Your task to perform on an android device: install app "Roku - Official Remote Control" Image 0: 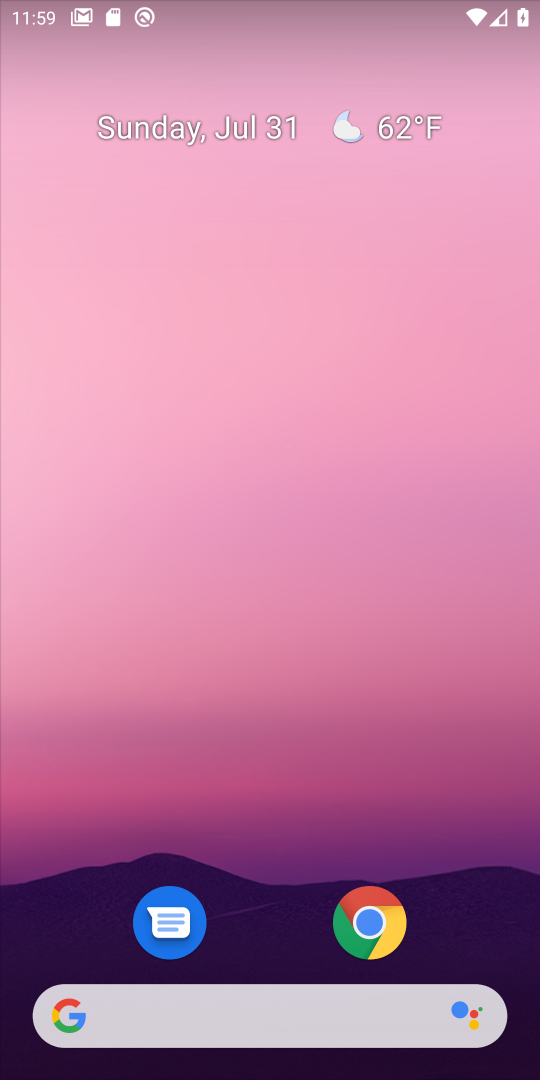
Step 0: drag from (295, 855) to (295, 242)
Your task to perform on an android device: install app "Roku - Official Remote Control" Image 1: 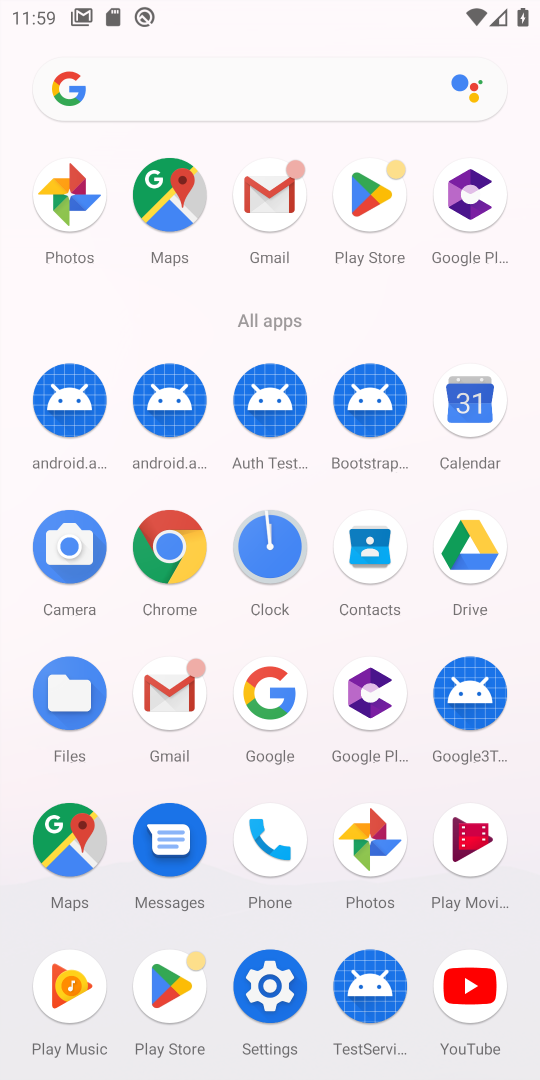
Step 1: click (358, 206)
Your task to perform on an android device: install app "Roku - Official Remote Control" Image 2: 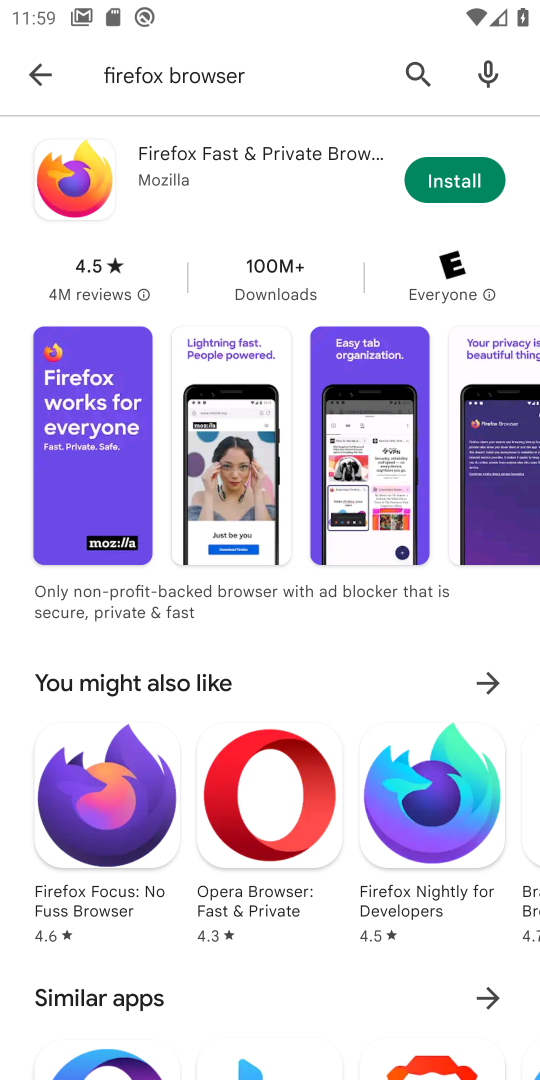
Step 2: drag from (414, 81) to (463, 81)
Your task to perform on an android device: install app "Roku - Official Remote Control" Image 3: 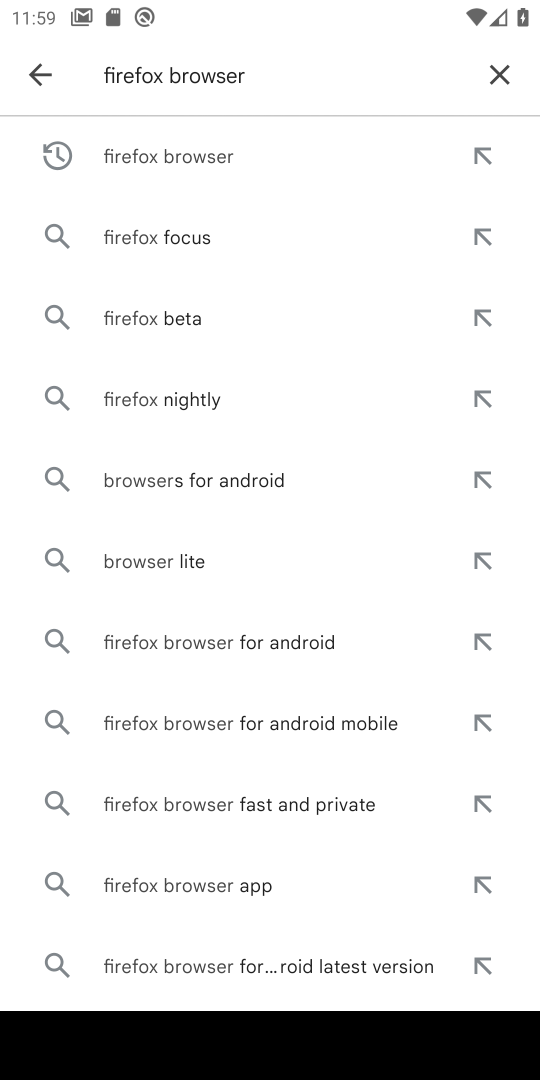
Step 3: click (499, 65)
Your task to perform on an android device: install app "Roku - Official Remote Control" Image 4: 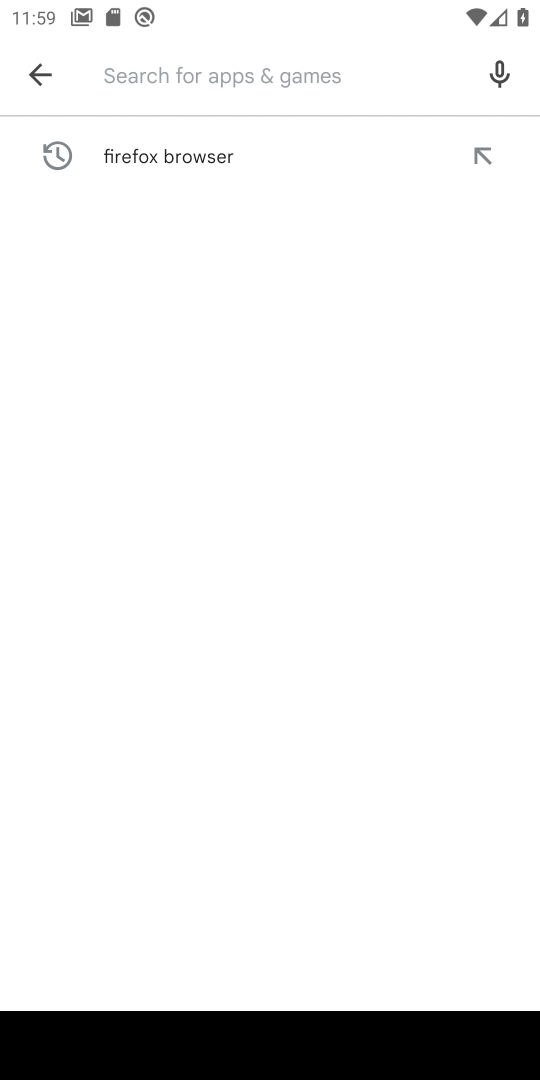
Step 4: click (297, 84)
Your task to perform on an android device: install app "Roku - Official Remote Control" Image 5: 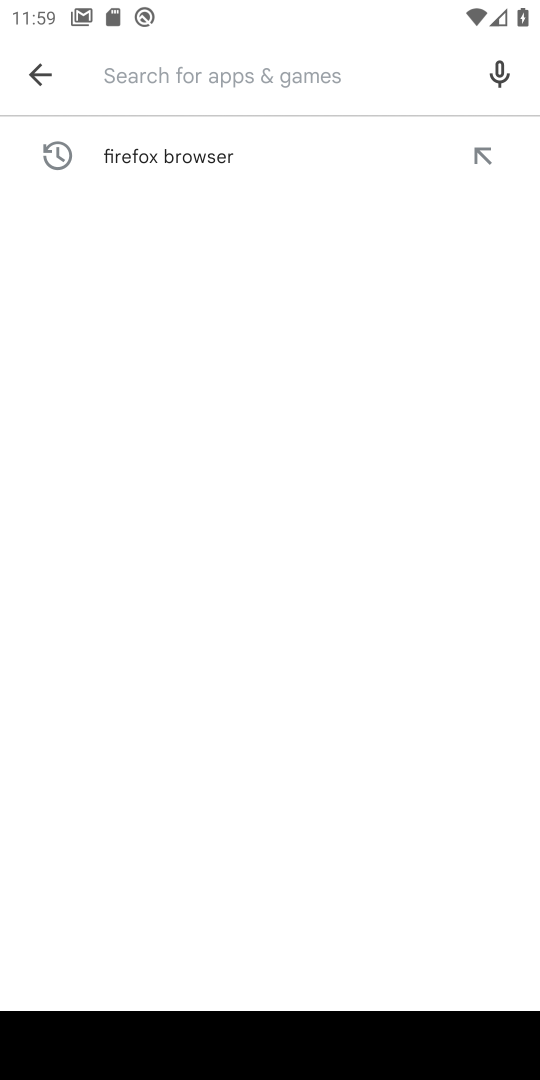
Step 5: type "Roku - Official Remote Control"
Your task to perform on an android device: install app "Roku - Official Remote Control" Image 6: 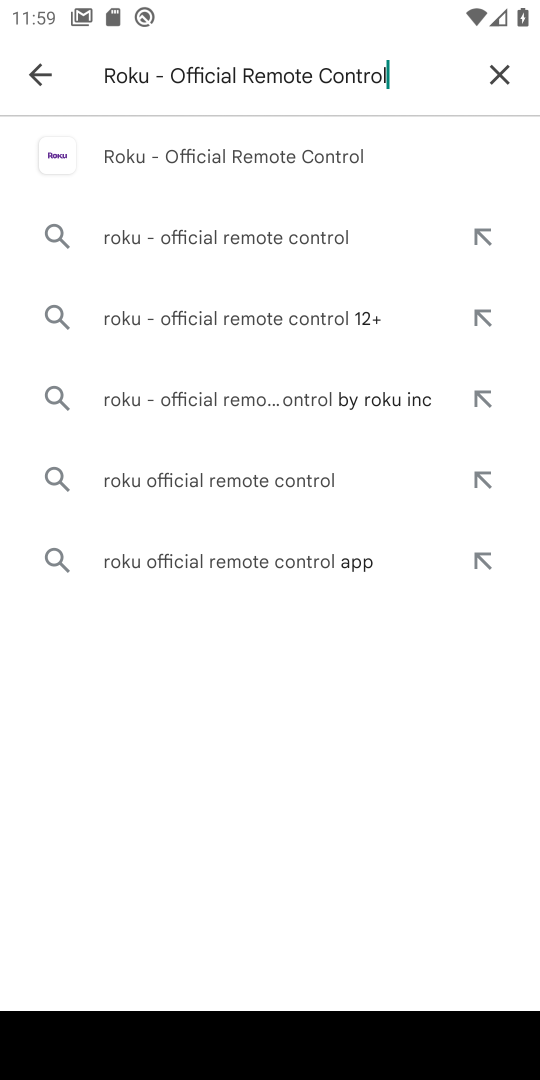
Step 6: click (419, 160)
Your task to perform on an android device: install app "Roku - Official Remote Control" Image 7: 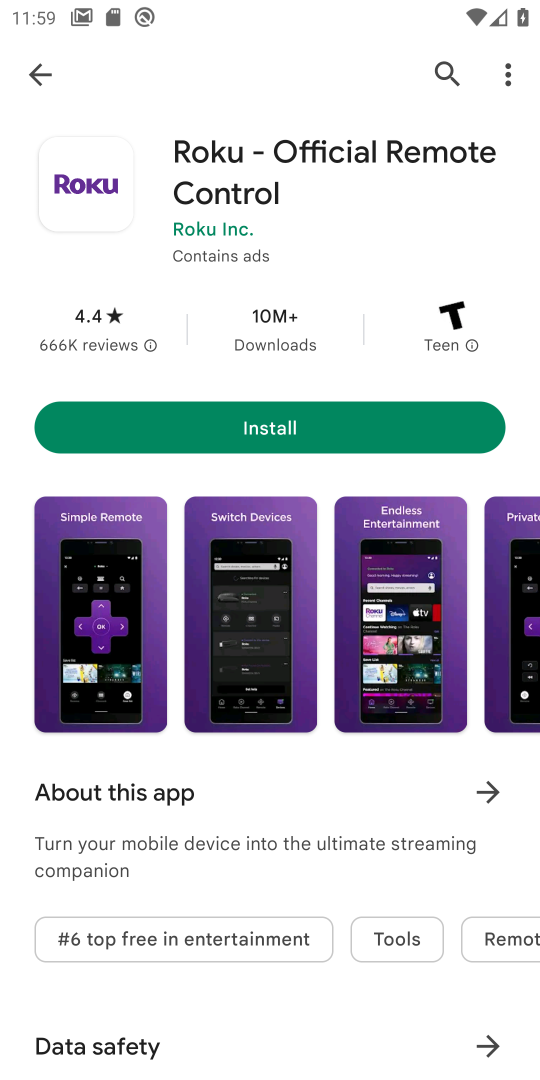
Step 7: click (315, 424)
Your task to perform on an android device: install app "Roku - Official Remote Control" Image 8: 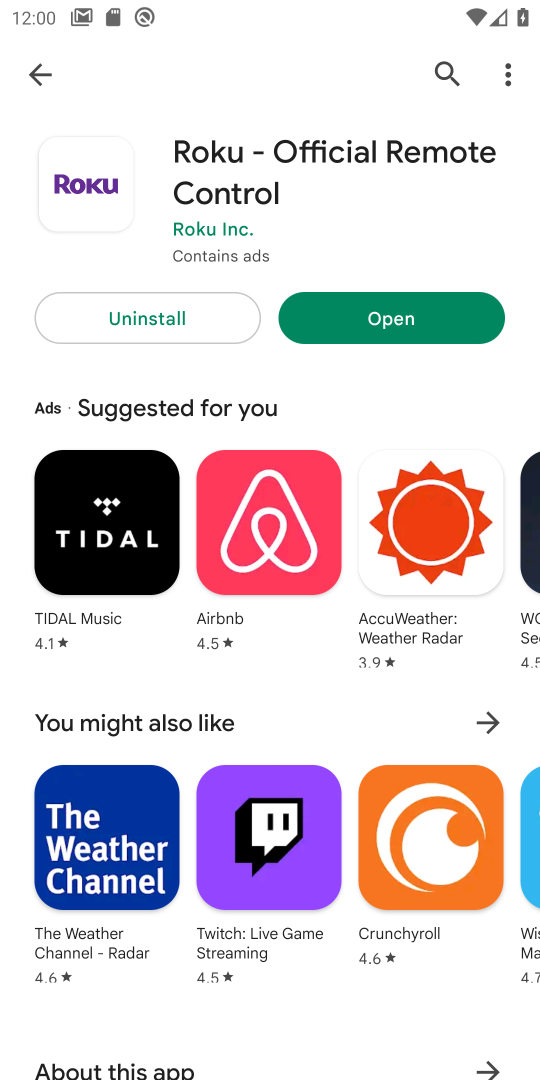
Step 8: task complete